Your task to perform on an android device: open app "The Home Depot" Image 0: 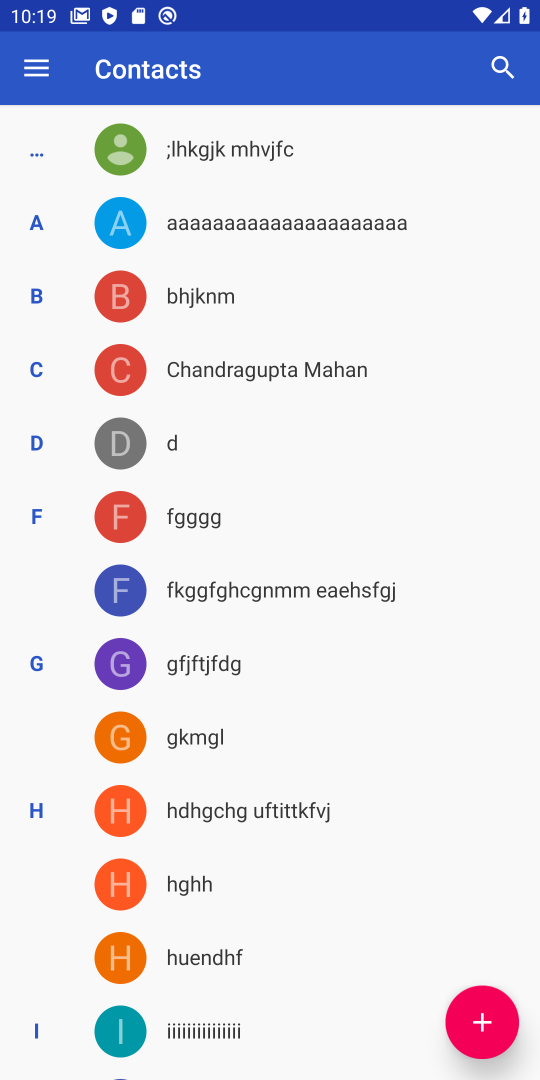
Step 0: press home button
Your task to perform on an android device: open app "The Home Depot" Image 1: 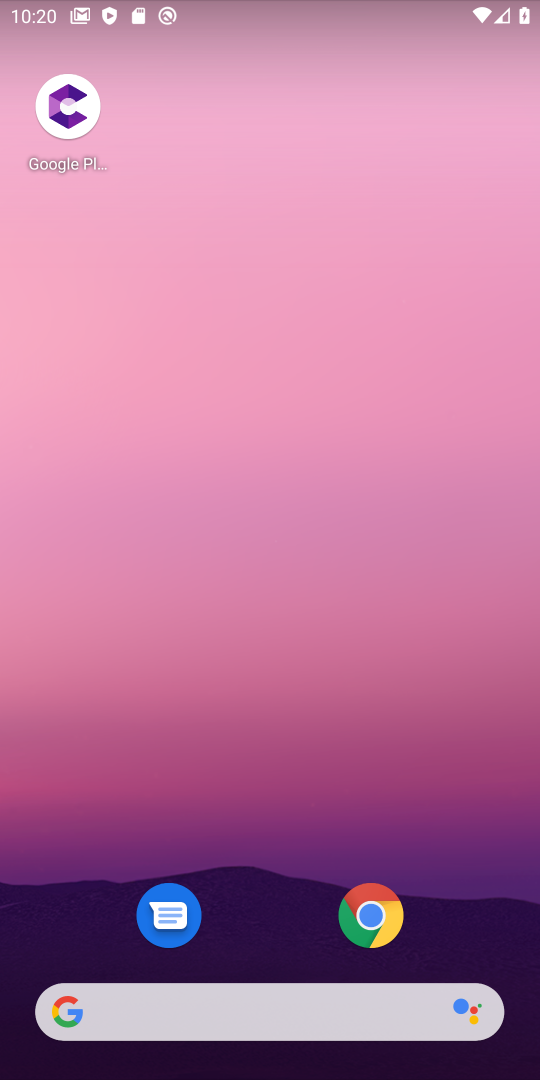
Step 1: drag from (313, 790) to (325, 140)
Your task to perform on an android device: open app "The Home Depot" Image 2: 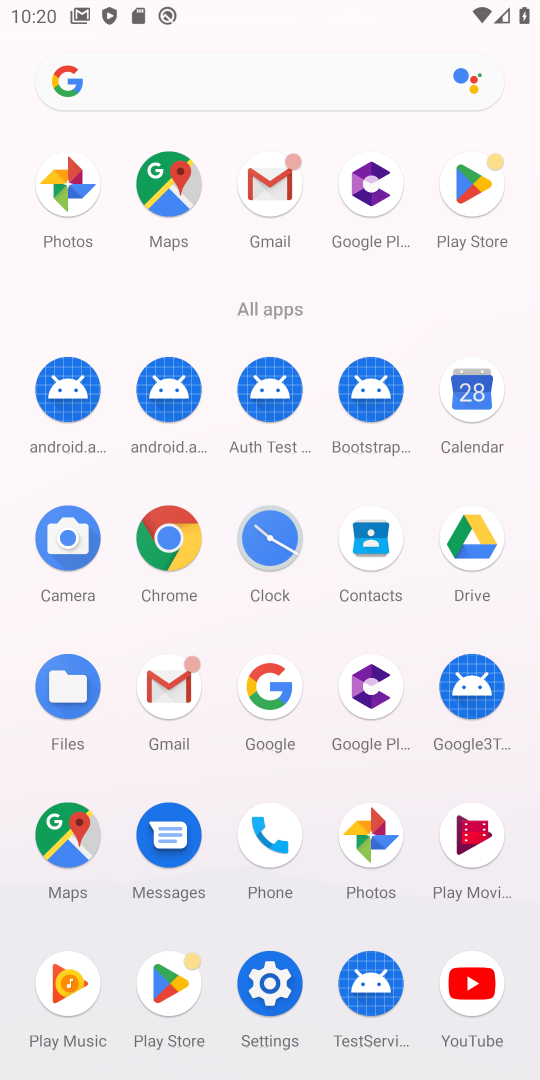
Step 2: click (164, 966)
Your task to perform on an android device: open app "The Home Depot" Image 3: 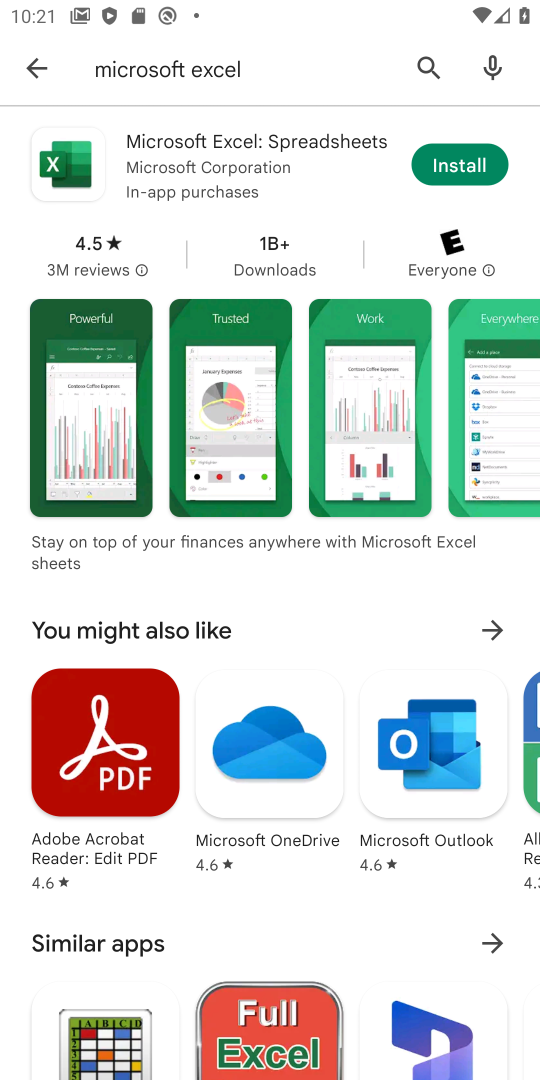
Step 3: task complete